Your task to perform on an android device: turn on wifi Image 0: 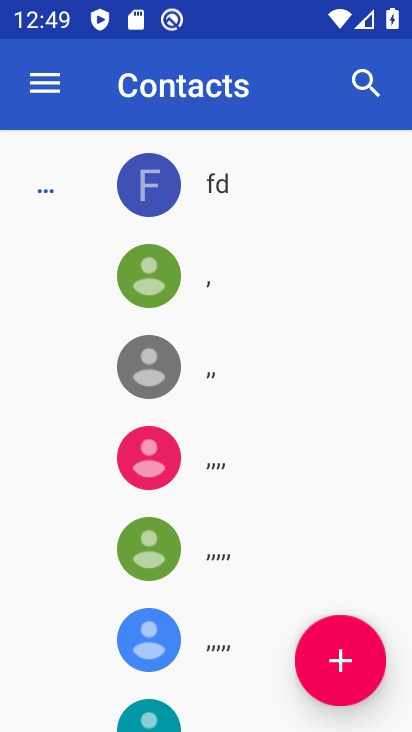
Step 0: press home button
Your task to perform on an android device: turn on wifi Image 1: 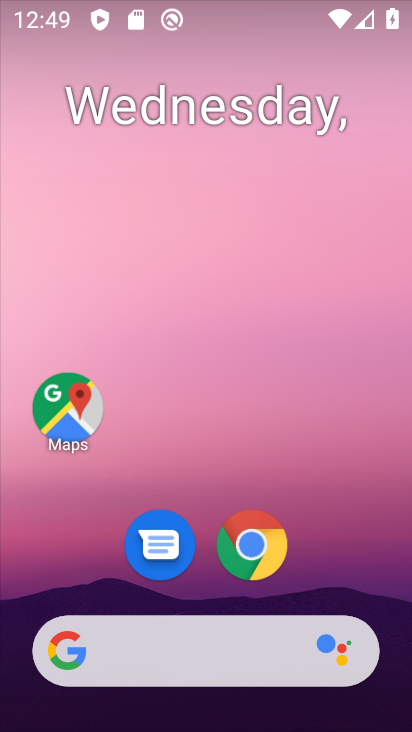
Step 1: drag from (267, 464) to (229, 184)
Your task to perform on an android device: turn on wifi Image 2: 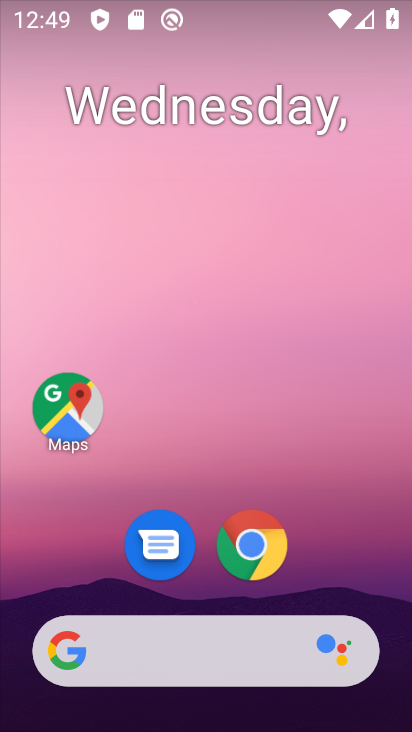
Step 2: drag from (347, 488) to (303, 110)
Your task to perform on an android device: turn on wifi Image 3: 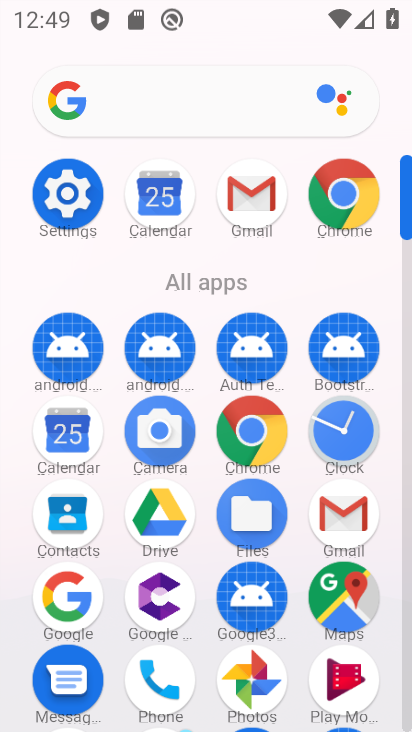
Step 3: click (68, 177)
Your task to perform on an android device: turn on wifi Image 4: 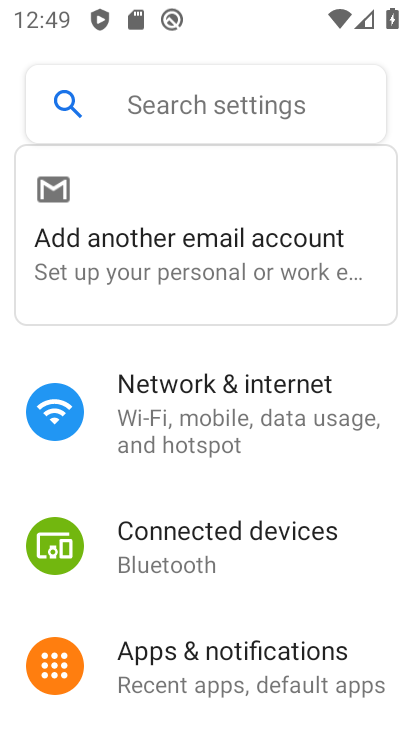
Step 4: click (182, 409)
Your task to perform on an android device: turn on wifi Image 5: 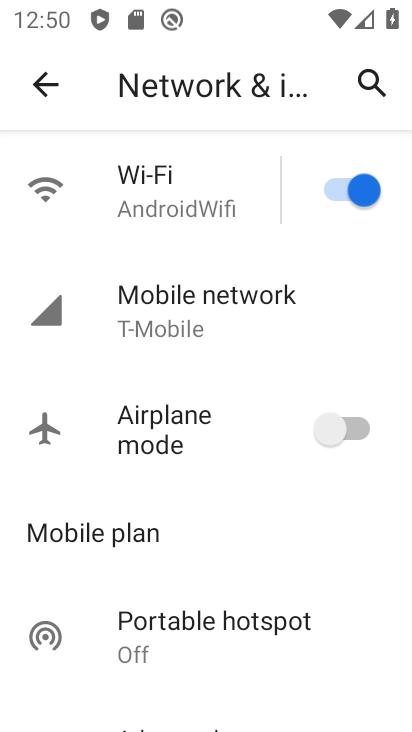
Step 5: task complete